Your task to perform on an android device: open chrome and create a bookmark for the current page Image 0: 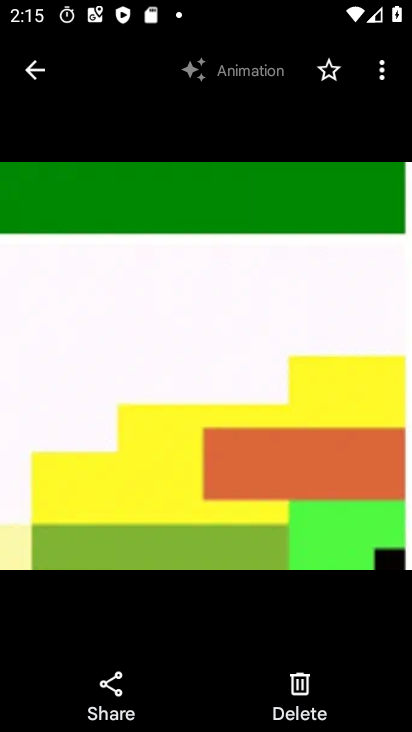
Step 0: press home button
Your task to perform on an android device: open chrome and create a bookmark for the current page Image 1: 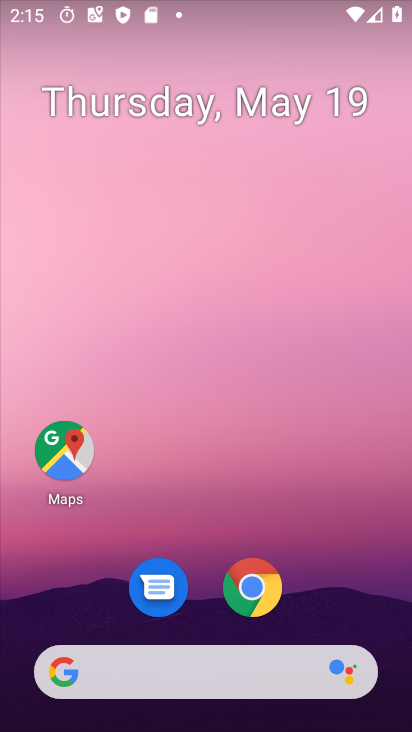
Step 1: click (257, 586)
Your task to perform on an android device: open chrome and create a bookmark for the current page Image 2: 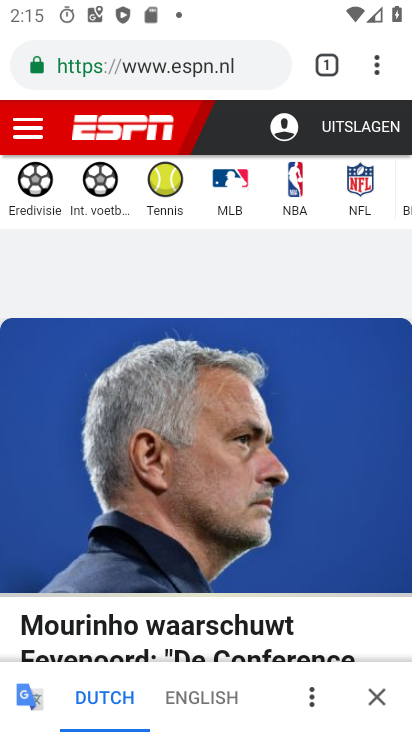
Step 2: click (378, 70)
Your task to perform on an android device: open chrome and create a bookmark for the current page Image 3: 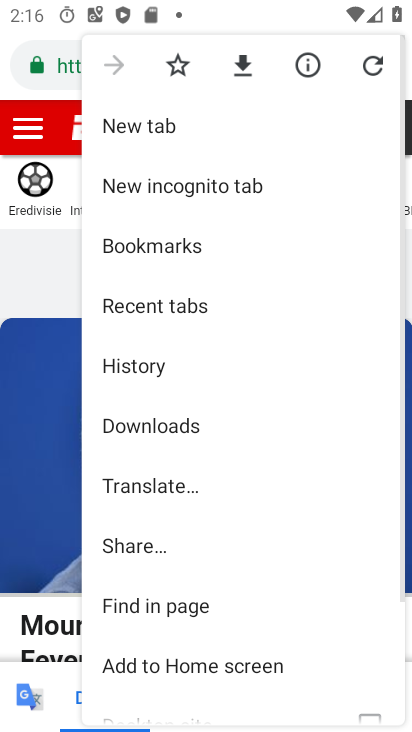
Step 3: click (182, 63)
Your task to perform on an android device: open chrome and create a bookmark for the current page Image 4: 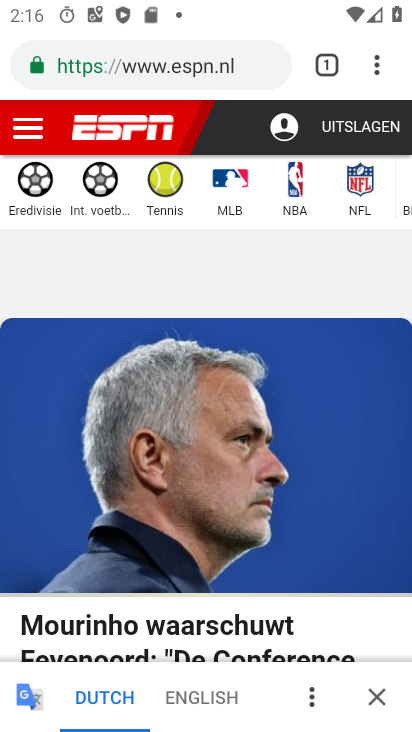
Step 4: task complete